Your task to perform on an android device: Go to Yahoo.com Image 0: 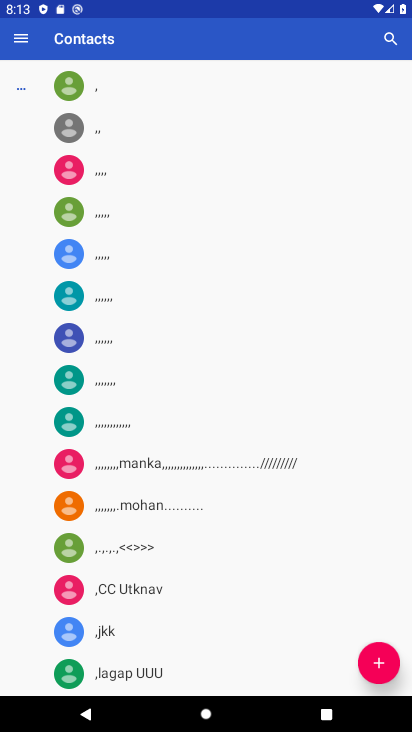
Step 0: press home button
Your task to perform on an android device: Go to Yahoo.com Image 1: 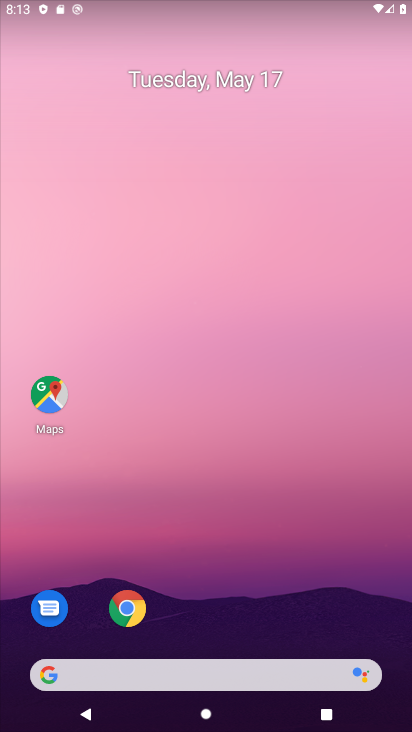
Step 1: drag from (357, 614) to (364, 122)
Your task to perform on an android device: Go to Yahoo.com Image 2: 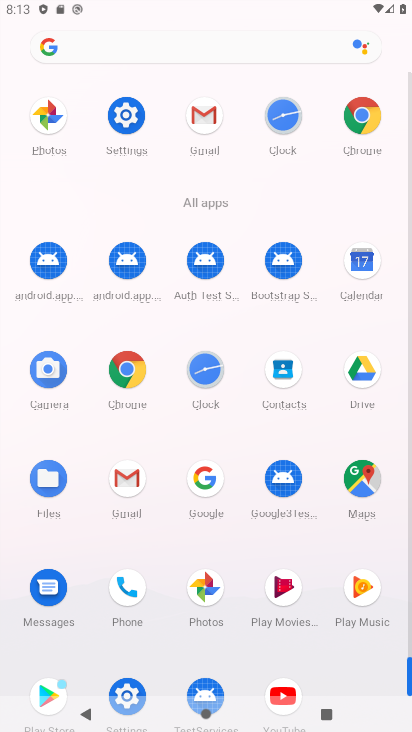
Step 2: click (132, 367)
Your task to perform on an android device: Go to Yahoo.com Image 3: 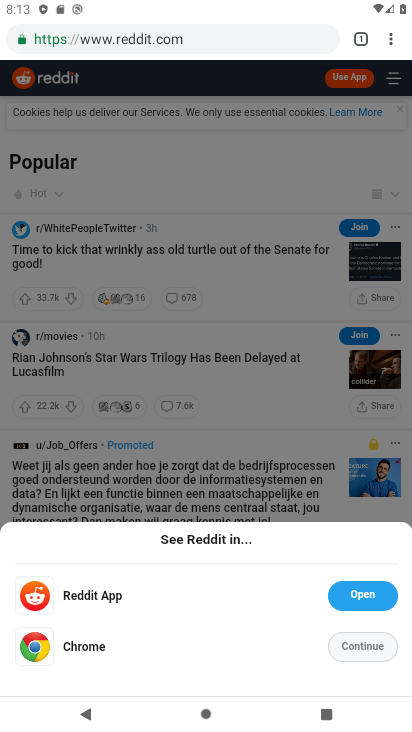
Step 3: press back button
Your task to perform on an android device: Go to Yahoo.com Image 4: 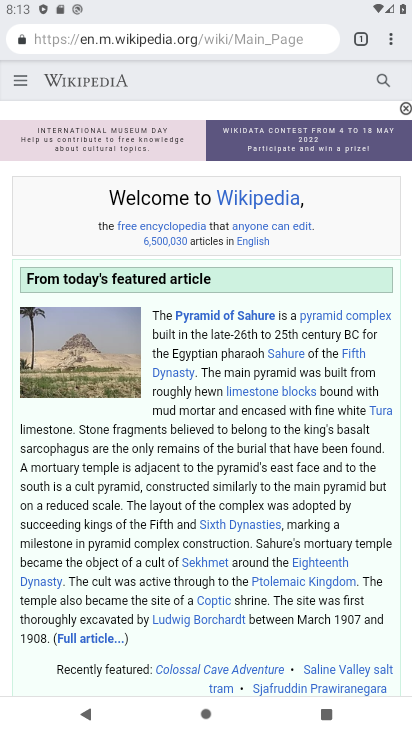
Step 4: press back button
Your task to perform on an android device: Go to Yahoo.com Image 5: 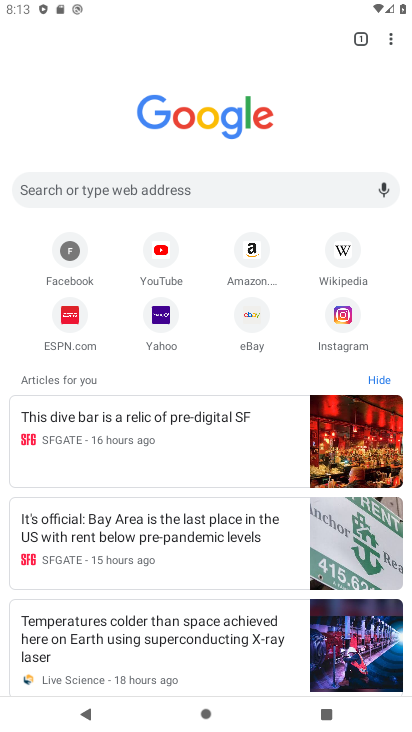
Step 5: click (167, 330)
Your task to perform on an android device: Go to Yahoo.com Image 6: 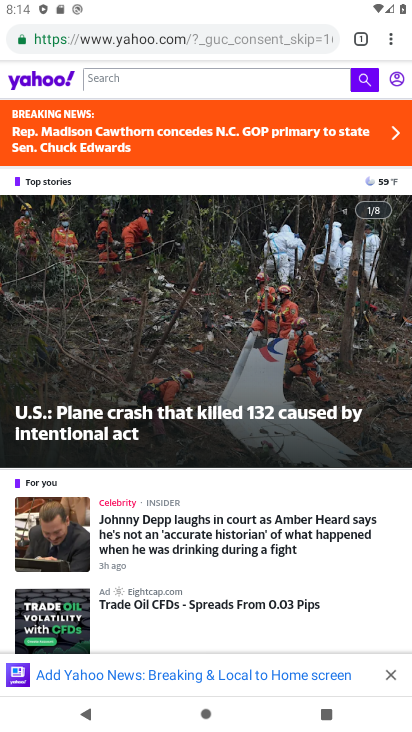
Step 6: task complete